Your task to perform on an android device: set the stopwatch Image 0: 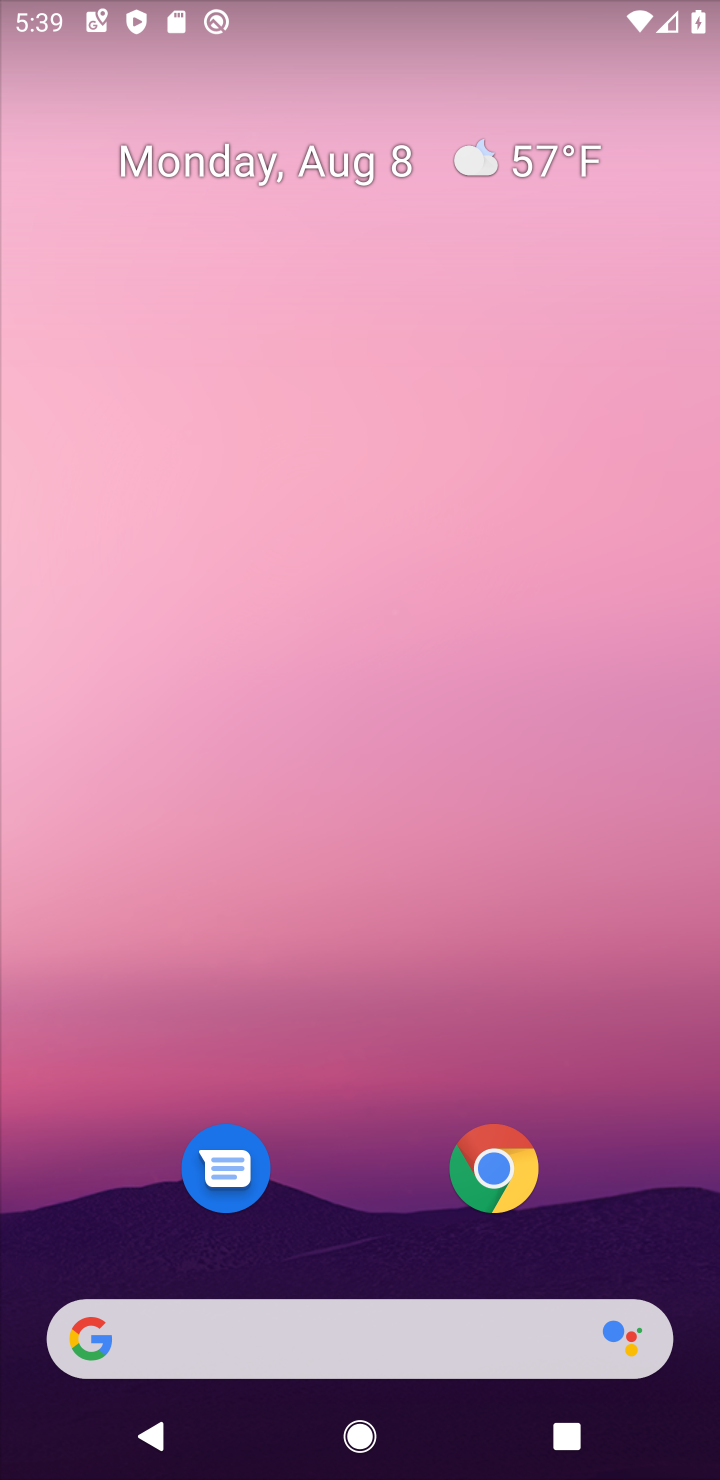
Step 0: drag from (361, 915) to (304, 89)
Your task to perform on an android device: set the stopwatch Image 1: 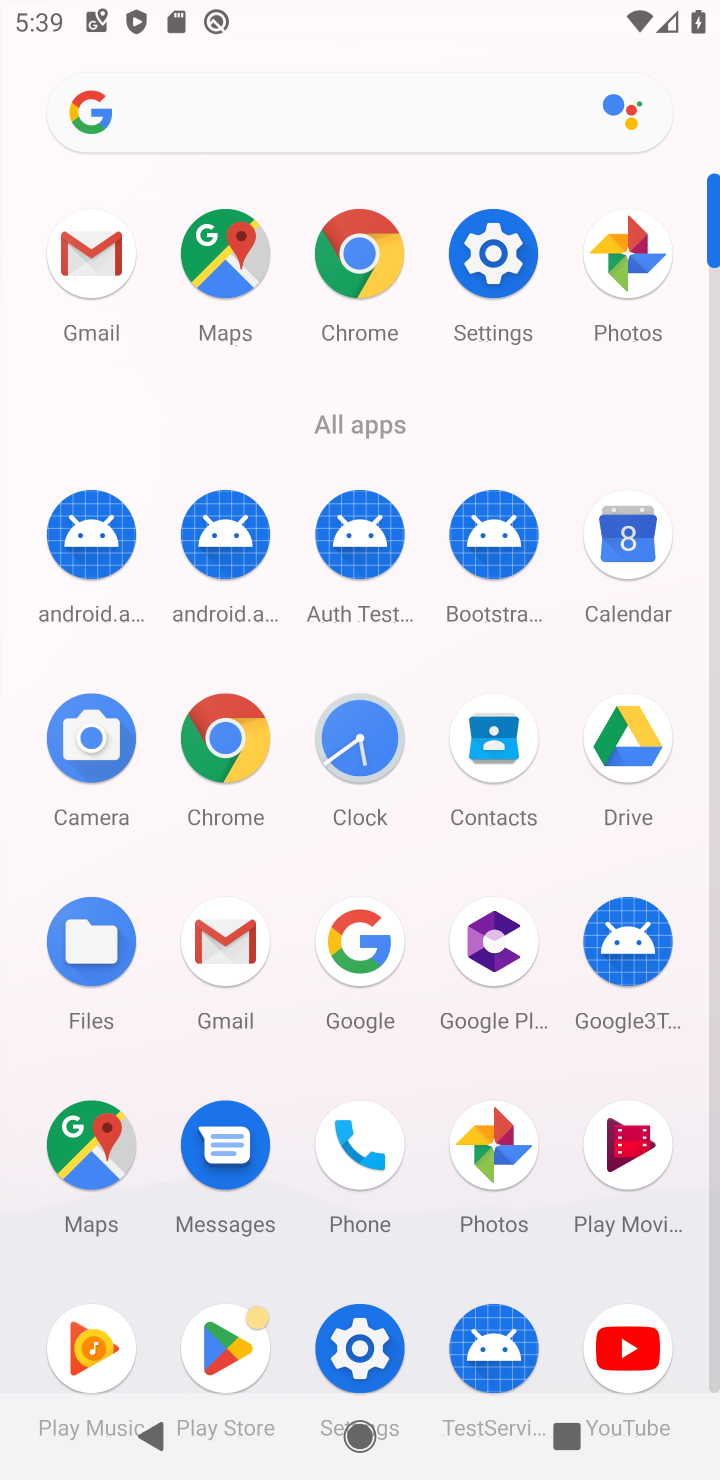
Step 1: click (367, 698)
Your task to perform on an android device: set the stopwatch Image 2: 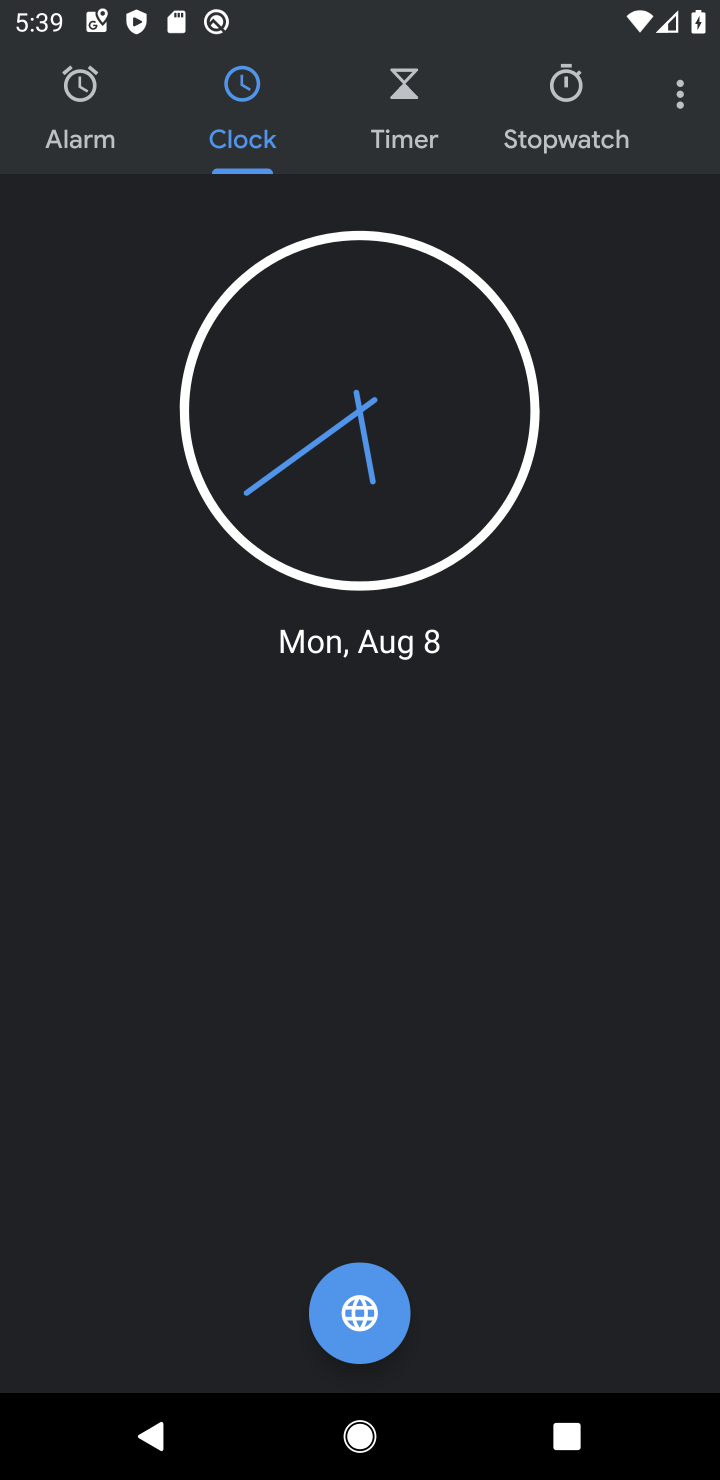
Step 2: click (573, 125)
Your task to perform on an android device: set the stopwatch Image 3: 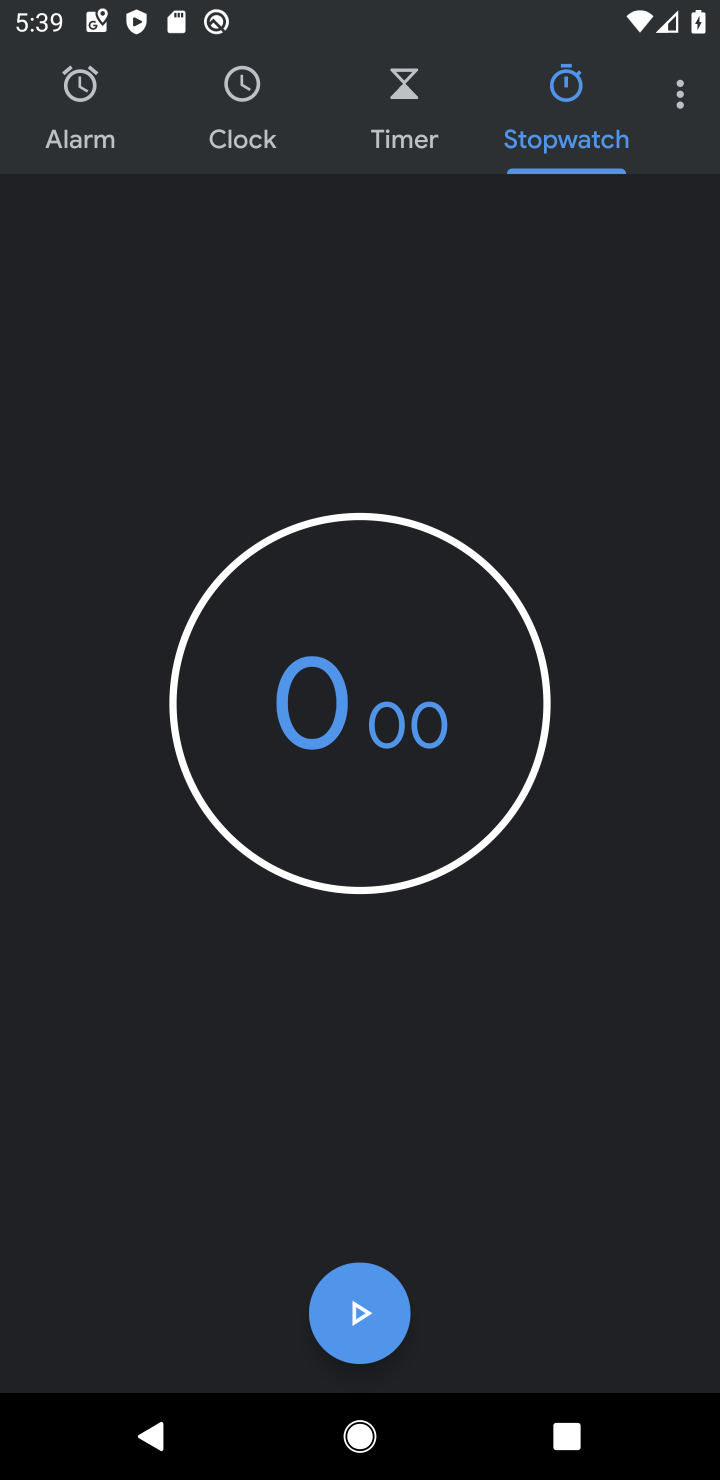
Step 3: click (327, 1330)
Your task to perform on an android device: set the stopwatch Image 4: 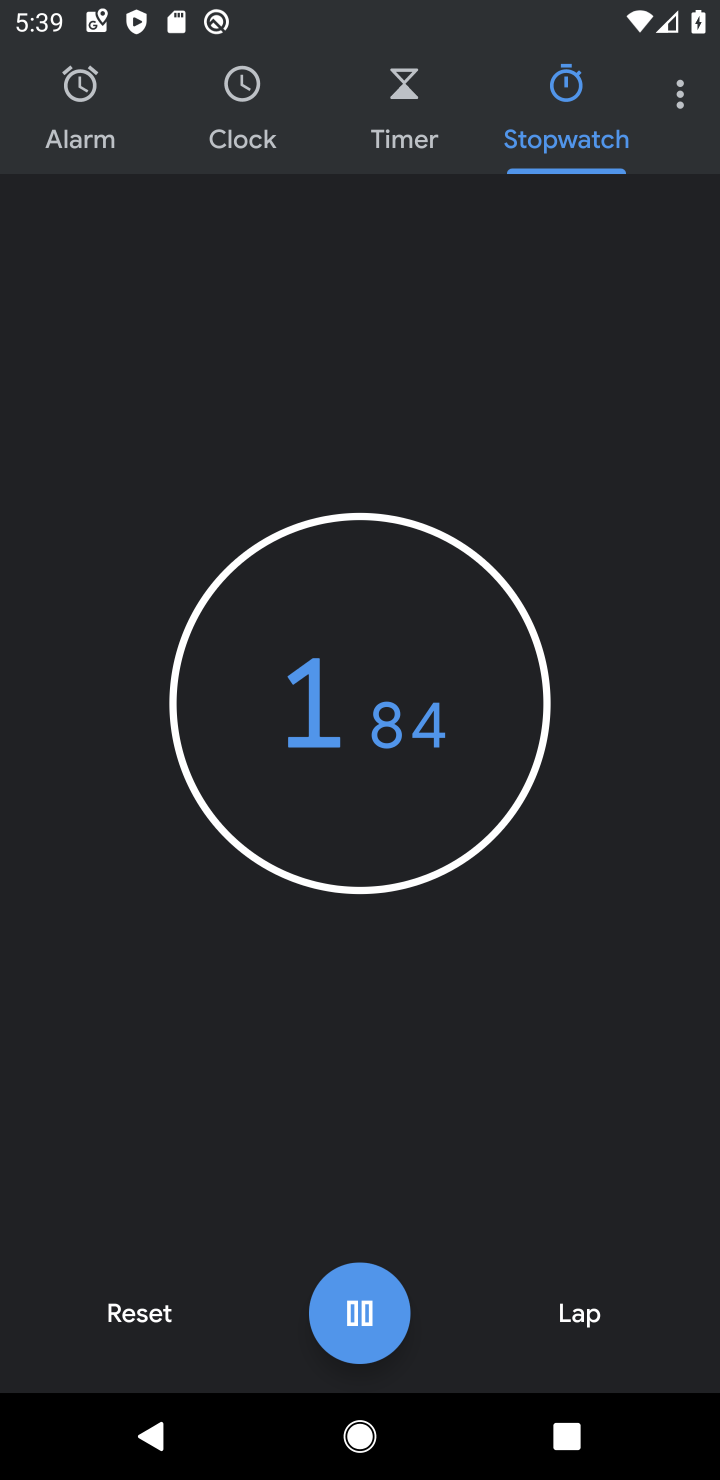
Step 4: task complete